Your task to perform on an android device: Open battery settings Image 0: 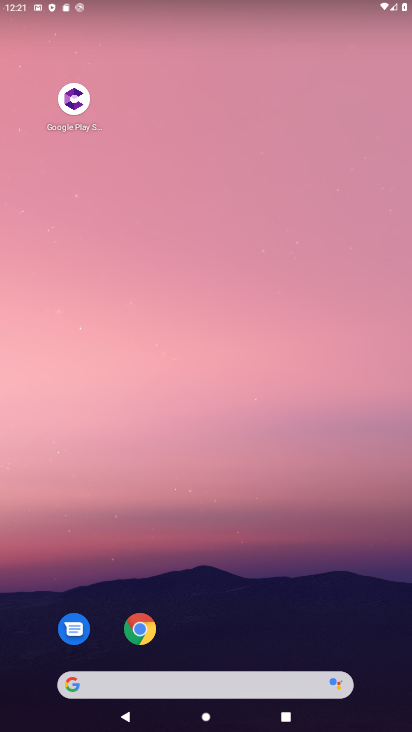
Step 0: drag from (277, 673) to (251, 135)
Your task to perform on an android device: Open battery settings Image 1: 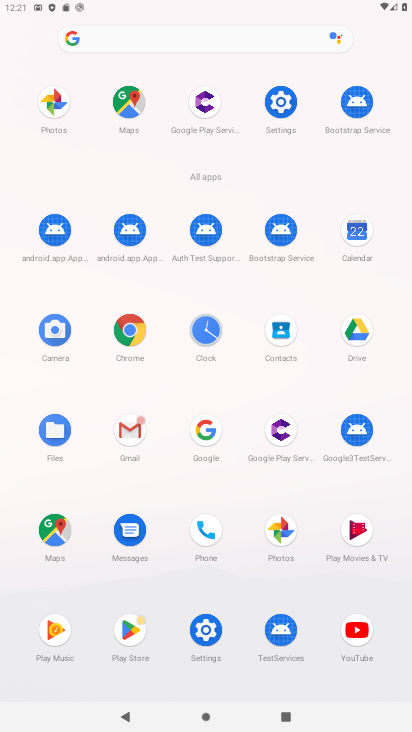
Step 1: click (277, 102)
Your task to perform on an android device: Open battery settings Image 2: 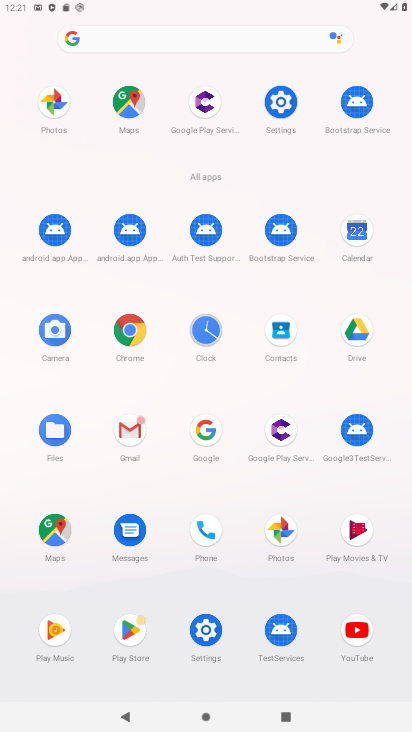
Step 2: click (278, 102)
Your task to perform on an android device: Open battery settings Image 3: 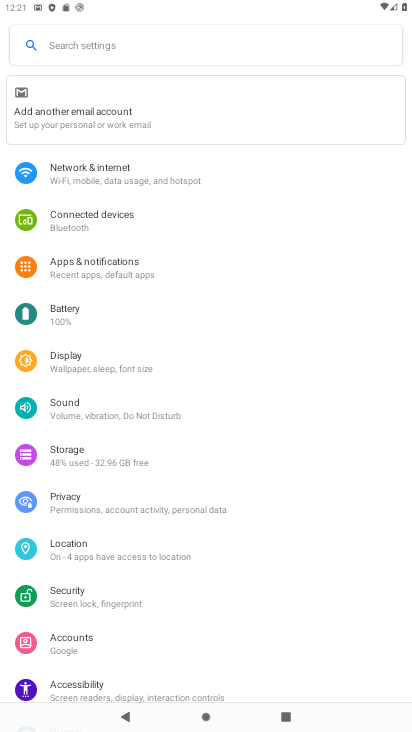
Step 3: click (73, 322)
Your task to perform on an android device: Open battery settings Image 4: 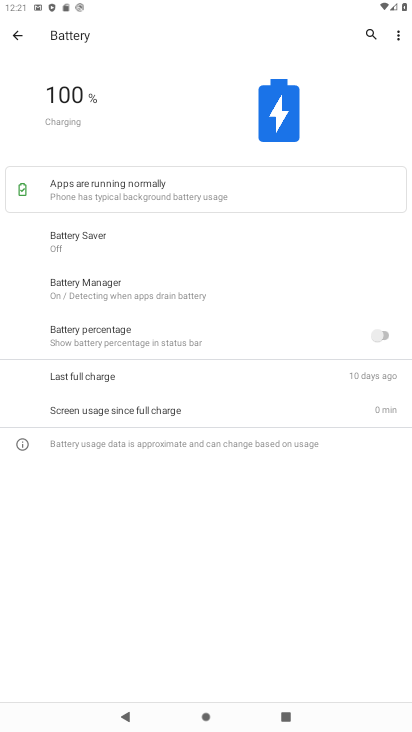
Step 4: task complete